Your task to perform on an android device: toggle pop-ups in chrome Image 0: 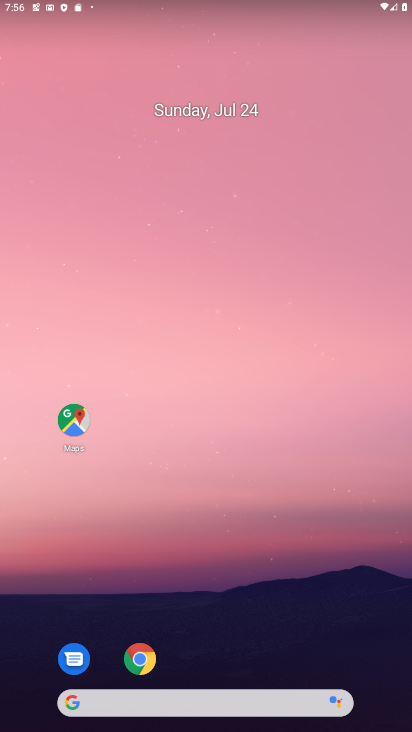
Step 0: click (141, 664)
Your task to perform on an android device: toggle pop-ups in chrome Image 1: 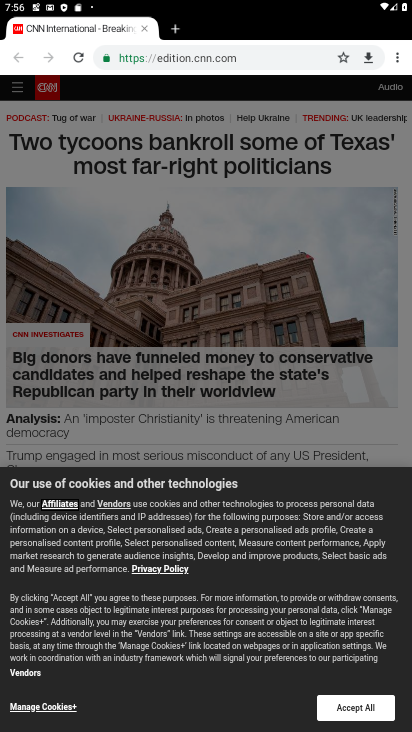
Step 1: click (397, 59)
Your task to perform on an android device: toggle pop-ups in chrome Image 2: 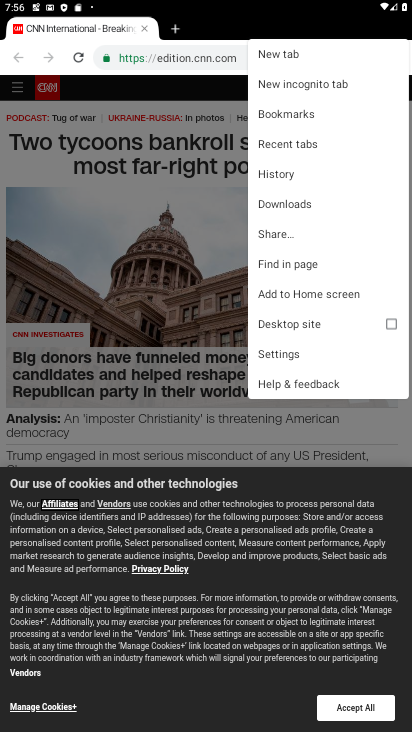
Step 2: click (296, 353)
Your task to perform on an android device: toggle pop-ups in chrome Image 3: 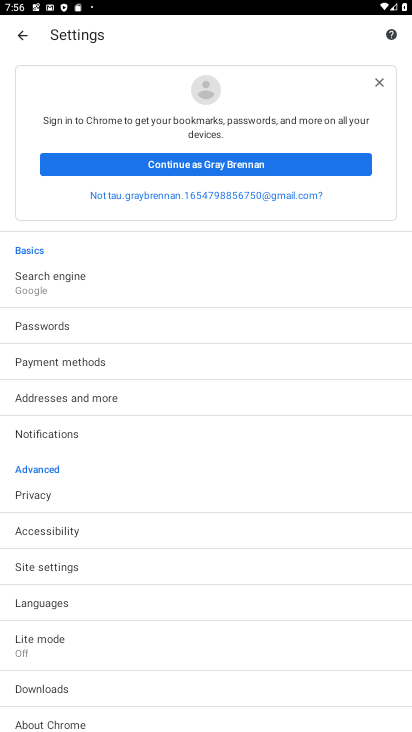
Step 3: click (52, 575)
Your task to perform on an android device: toggle pop-ups in chrome Image 4: 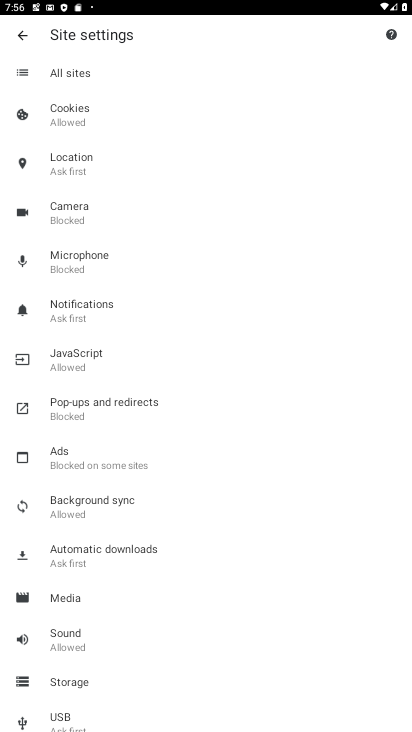
Step 4: click (68, 421)
Your task to perform on an android device: toggle pop-ups in chrome Image 5: 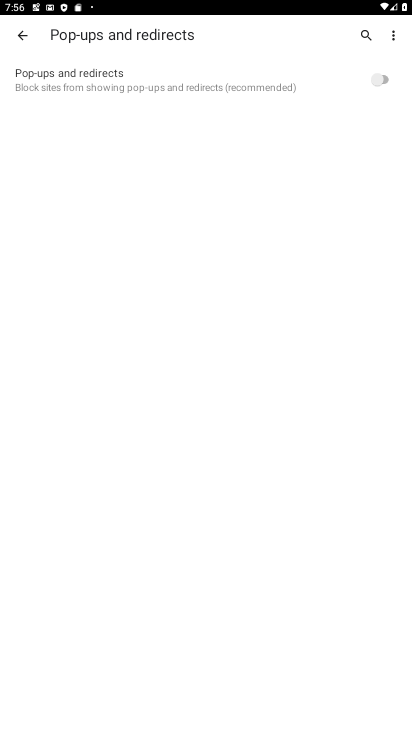
Step 5: click (382, 81)
Your task to perform on an android device: toggle pop-ups in chrome Image 6: 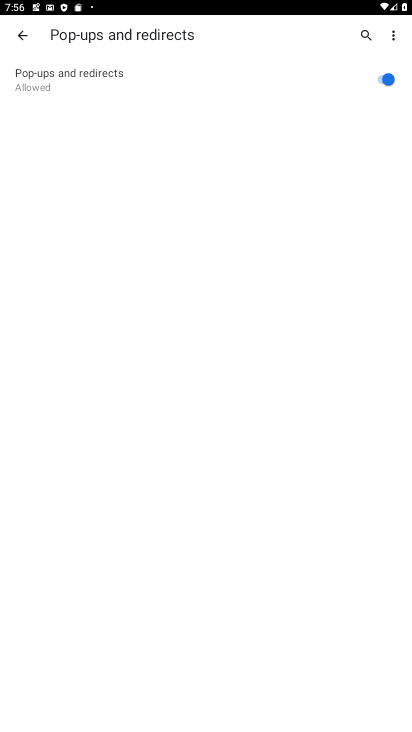
Step 6: task complete